Your task to perform on an android device: What's the latest video from GameTrailers? Image 0: 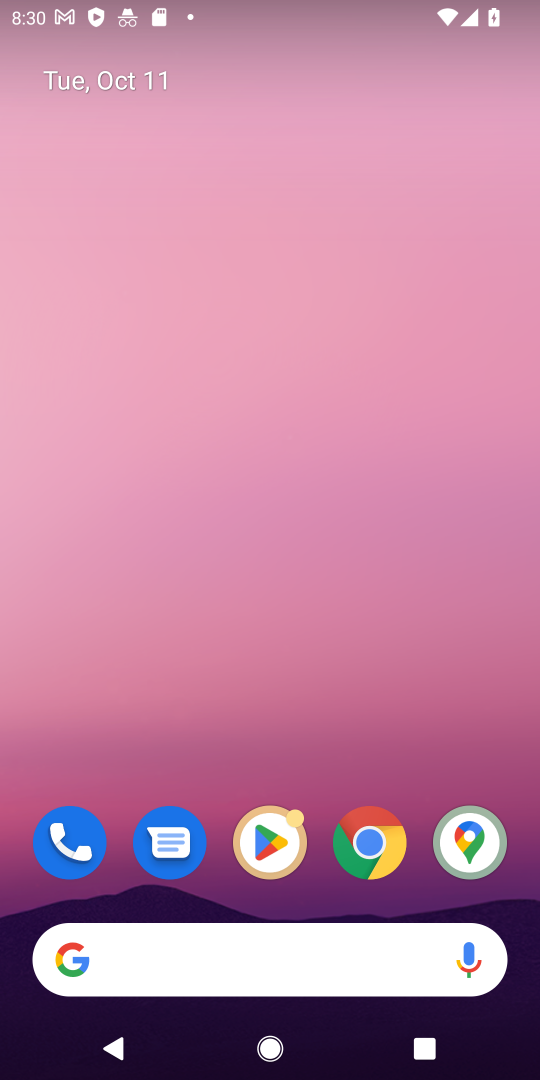
Step 0: click (278, 947)
Your task to perform on an android device: What's the latest video from GameTrailers? Image 1: 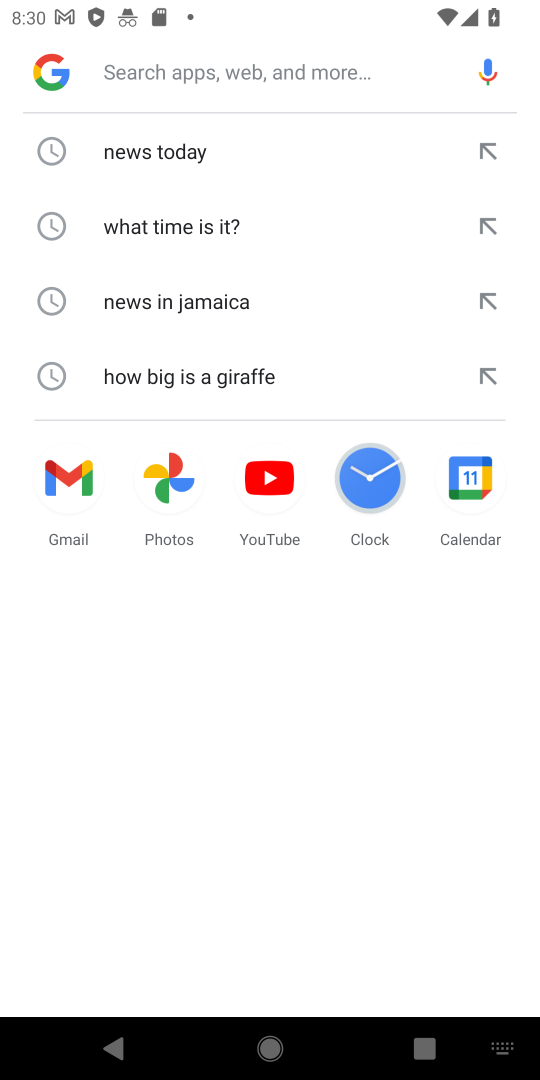
Step 1: type "What's the latest video from GameTrailers?"
Your task to perform on an android device: What's the latest video from GameTrailers? Image 2: 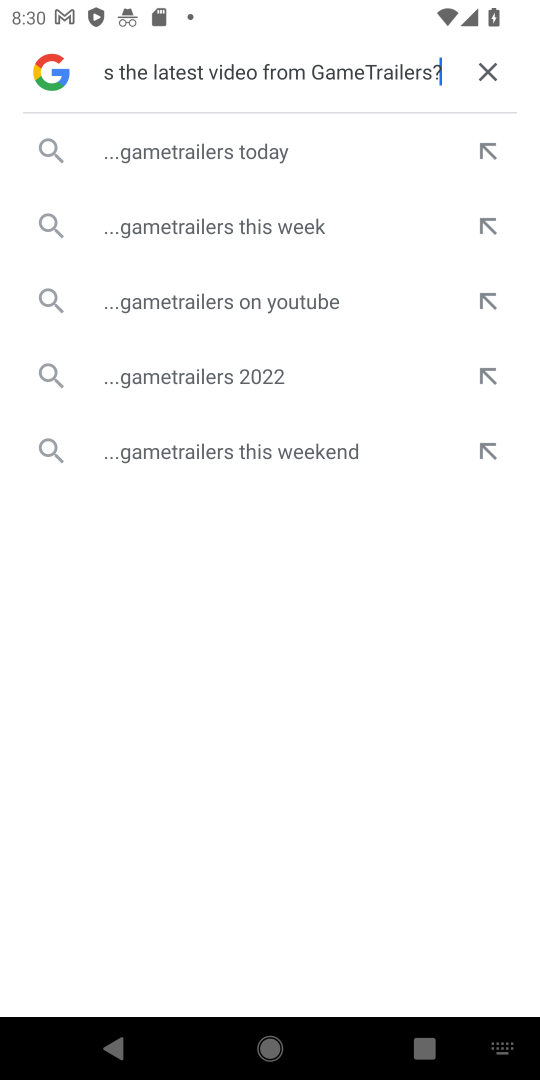
Step 2: click (245, 150)
Your task to perform on an android device: What's the latest video from GameTrailers? Image 3: 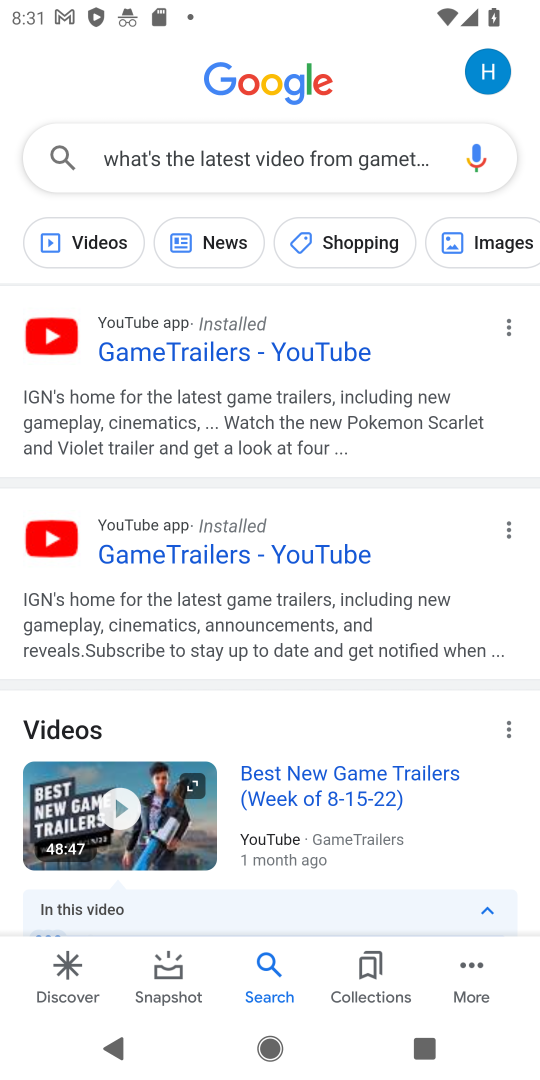
Step 3: task complete